Your task to perform on an android device: Search for Italian restaurants on Maps Image 0: 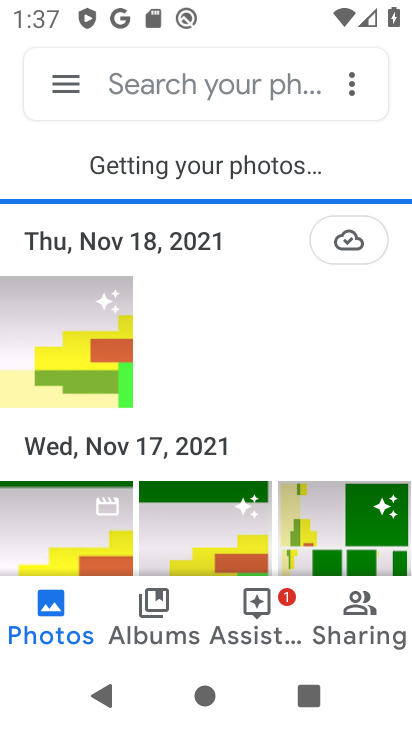
Step 0: press home button
Your task to perform on an android device: Search for Italian restaurants on Maps Image 1: 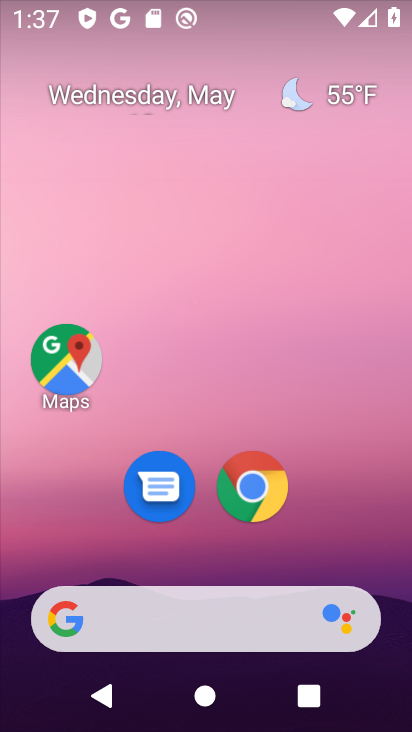
Step 1: click (343, 92)
Your task to perform on an android device: Search for Italian restaurants on Maps Image 2: 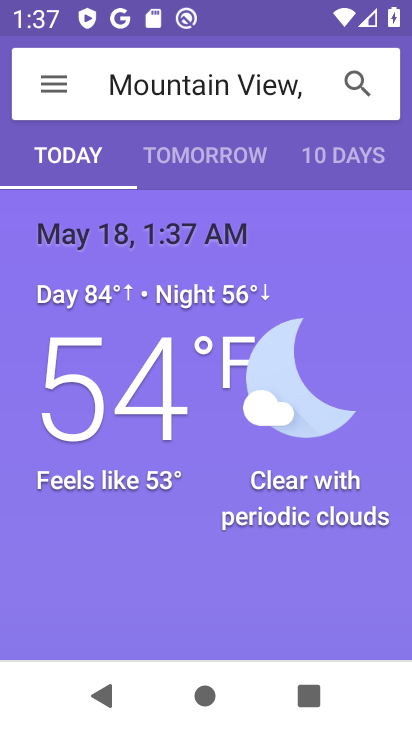
Step 2: click (154, 170)
Your task to perform on an android device: Search for Italian restaurants on Maps Image 3: 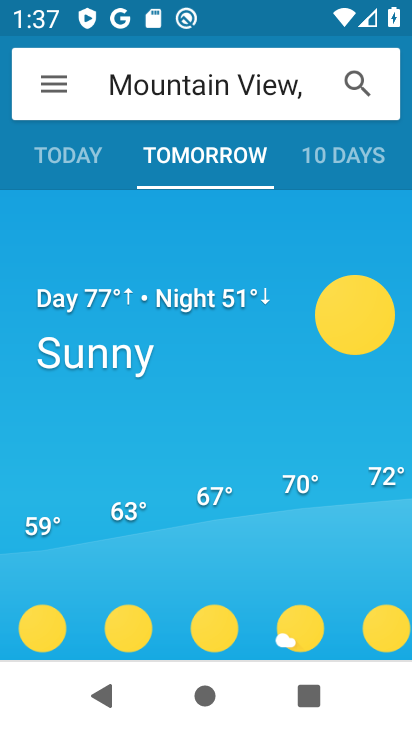
Step 3: task complete